Your task to perform on an android device: Open the map Image 0: 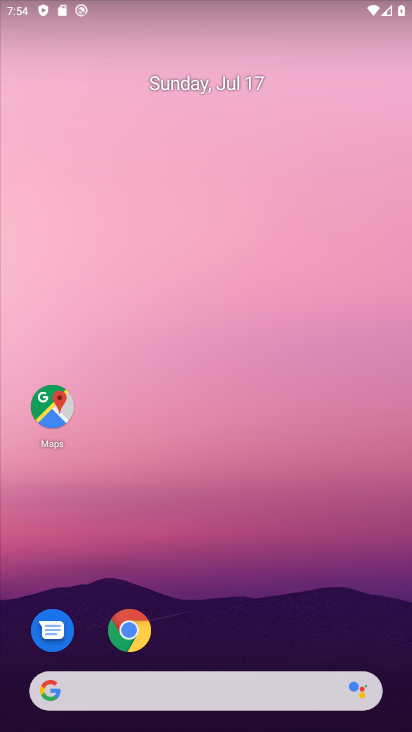
Step 0: drag from (359, 632) to (360, 183)
Your task to perform on an android device: Open the map Image 1: 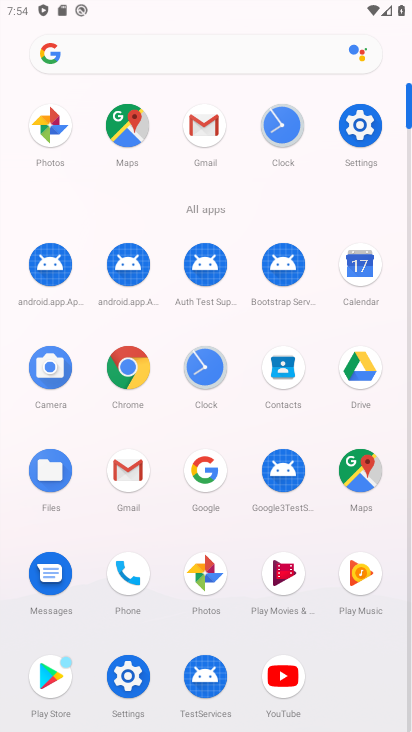
Step 1: click (360, 465)
Your task to perform on an android device: Open the map Image 2: 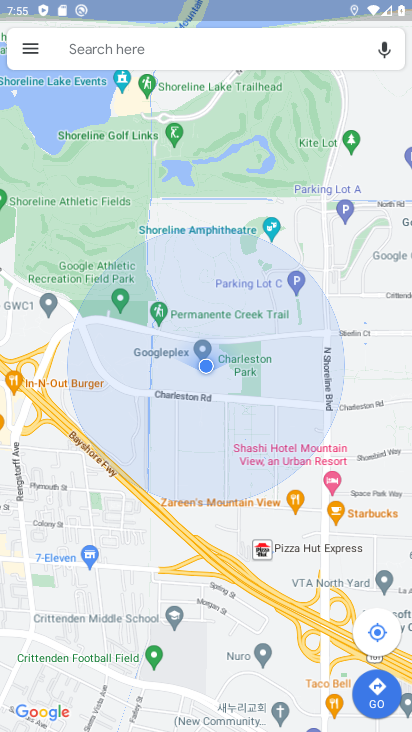
Step 2: task complete